Your task to perform on an android device: Search for sony triple a on newegg, select the first entry, and add it to the cart. Image 0: 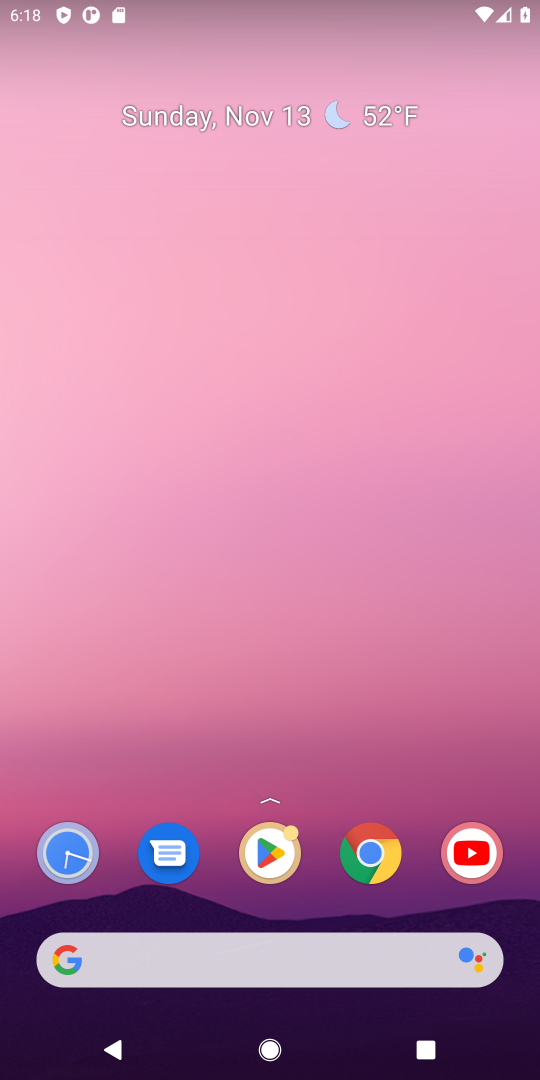
Step 0: press home button
Your task to perform on an android device: Search for sony triple a on newegg, select the first entry, and add it to the cart. Image 1: 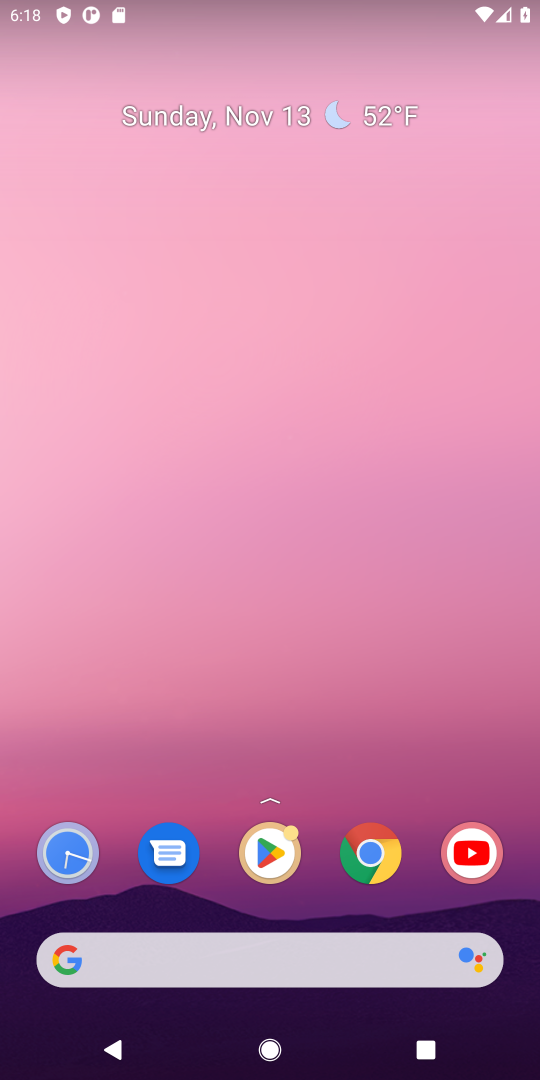
Step 1: click (94, 960)
Your task to perform on an android device: Search for sony triple a on newegg, select the first entry, and add it to the cart. Image 2: 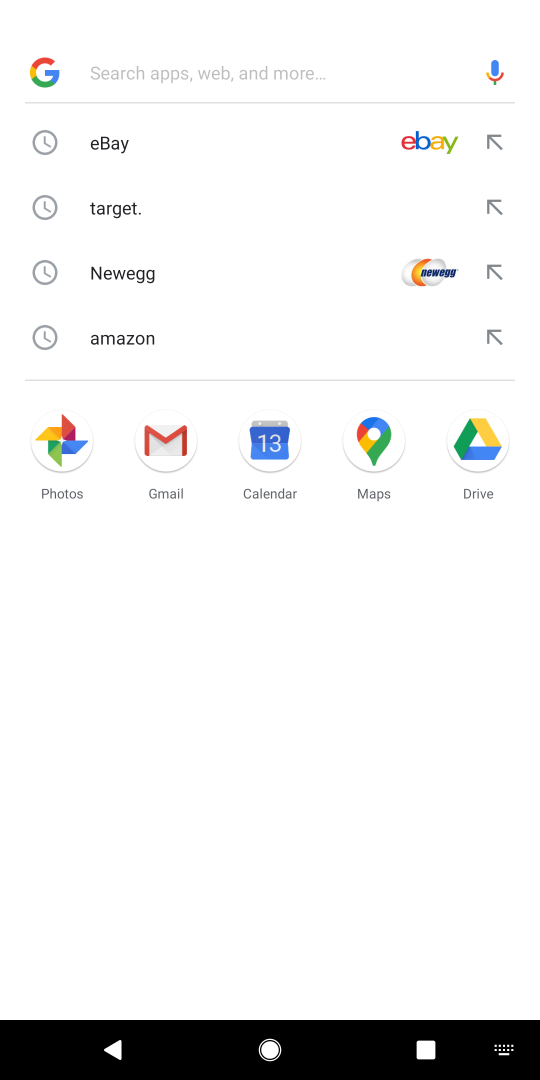
Step 2: type "newegg"
Your task to perform on an android device: Search for sony triple a on newegg, select the first entry, and add it to the cart. Image 3: 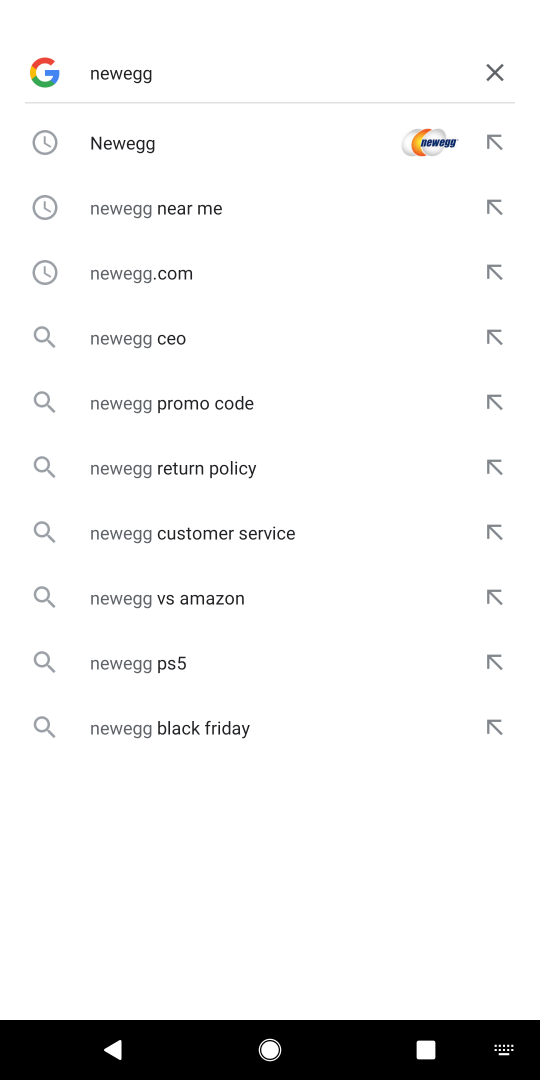
Step 3: press enter
Your task to perform on an android device: Search for sony triple a on newegg, select the first entry, and add it to the cart. Image 4: 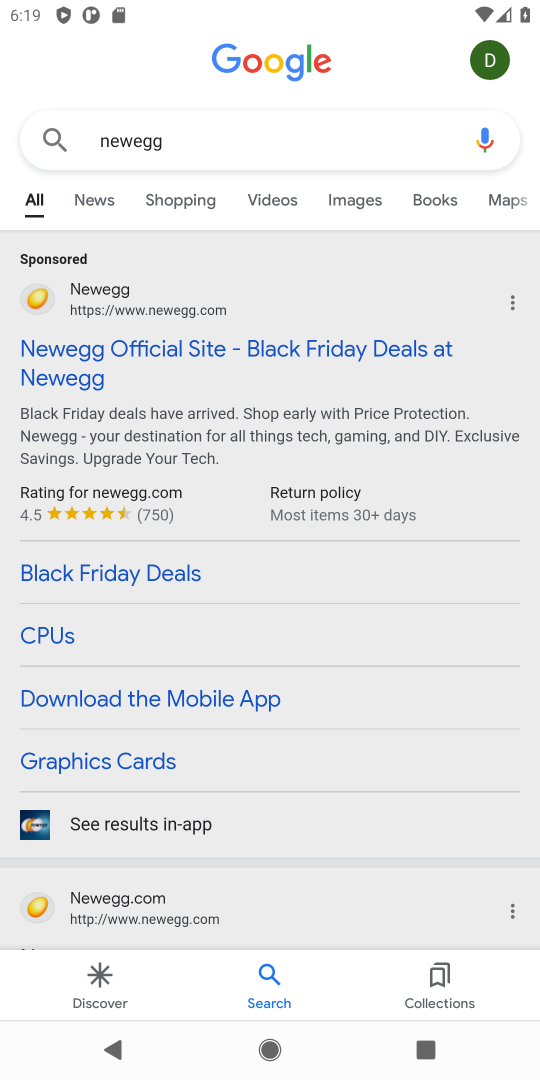
Step 4: click (88, 346)
Your task to perform on an android device: Search for sony triple a on newegg, select the first entry, and add it to the cart. Image 5: 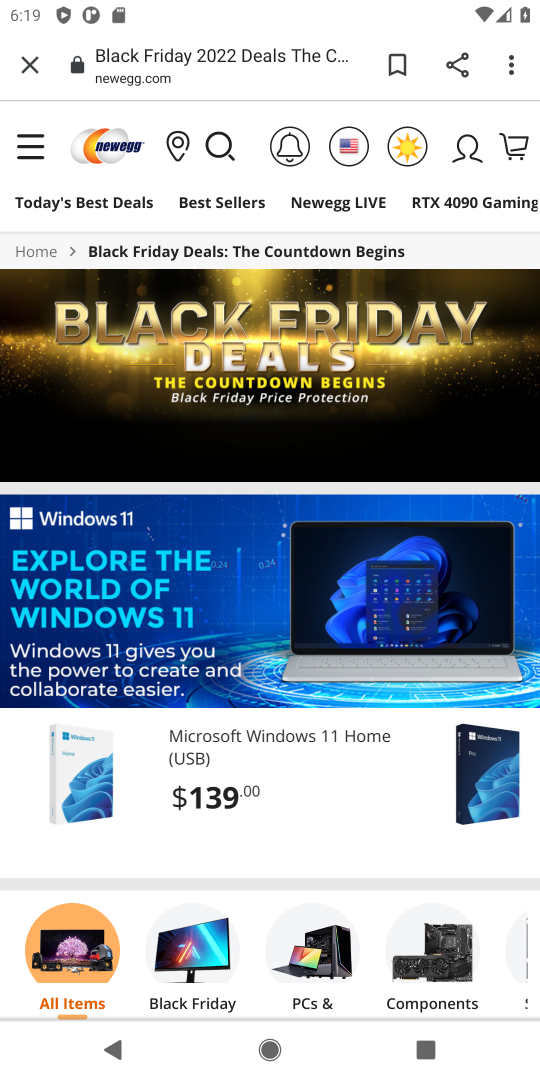
Step 5: click (216, 148)
Your task to perform on an android device: Search for sony triple a on newegg, select the first entry, and add it to the cart. Image 6: 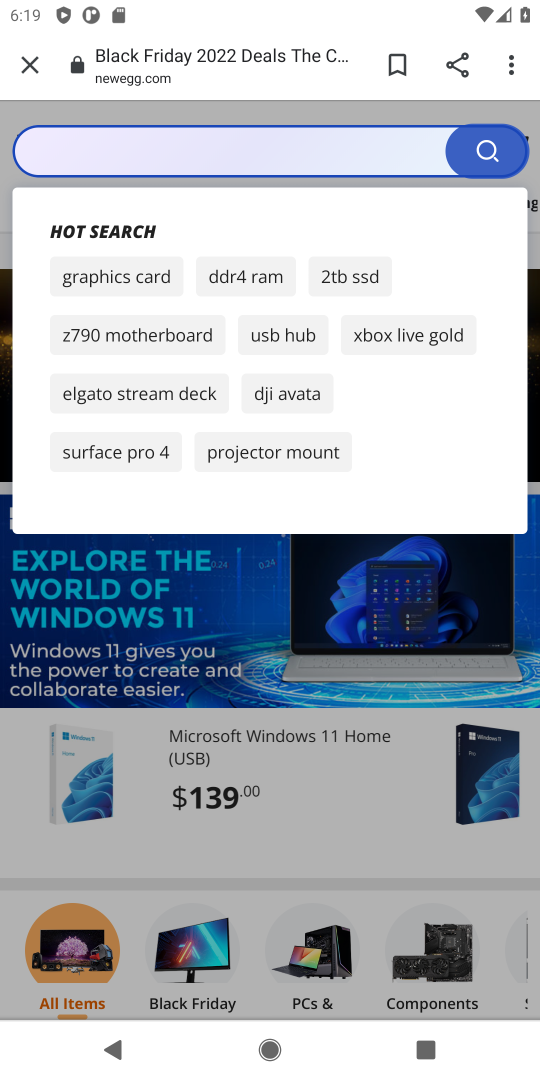
Step 6: click (57, 148)
Your task to perform on an android device: Search for sony triple a on newegg, select the first entry, and add it to the cart. Image 7: 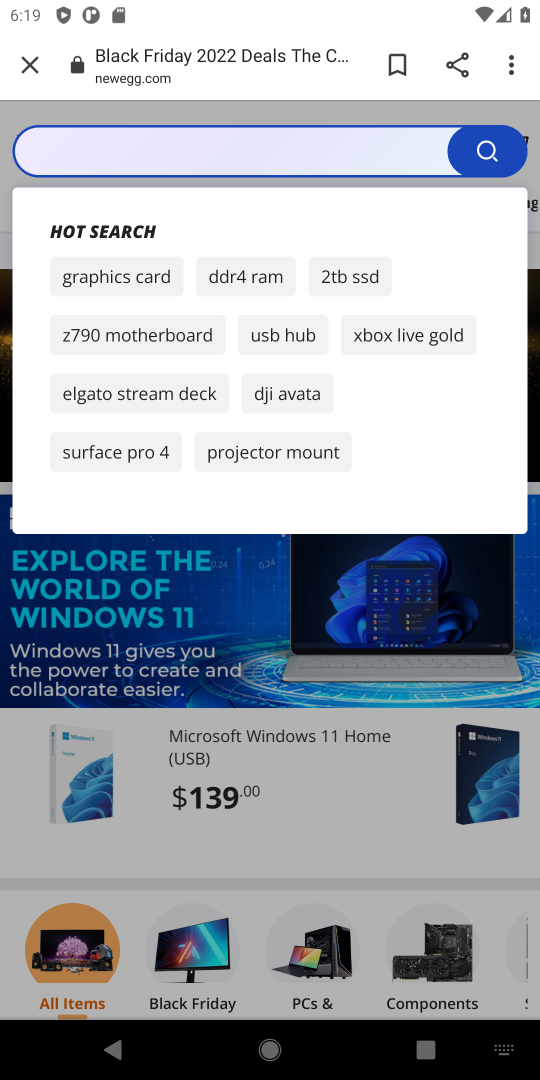
Step 7: type "sony triple a"
Your task to perform on an android device: Search for sony triple a on newegg, select the first entry, and add it to the cart. Image 8: 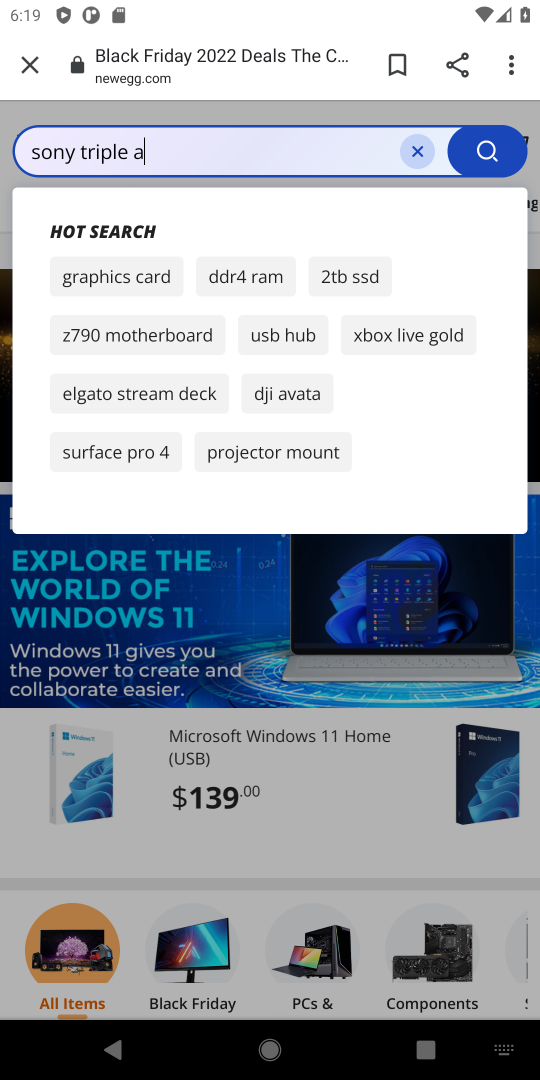
Step 8: press enter
Your task to perform on an android device: Search for sony triple a on newegg, select the first entry, and add it to the cart. Image 9: 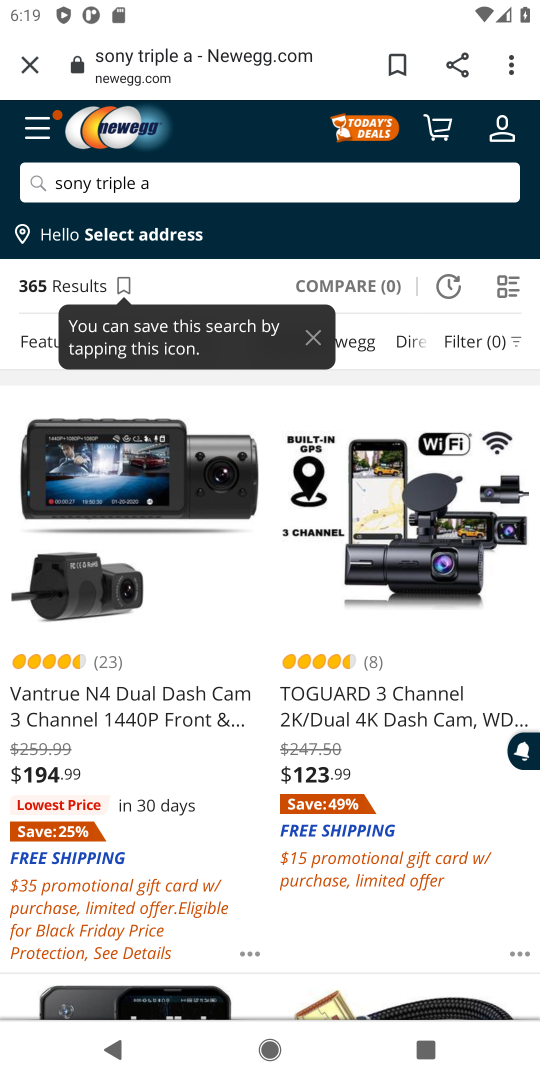
Step 9: task complete